Your task to perform on an android device: find which apps use the phone's location Image 0: 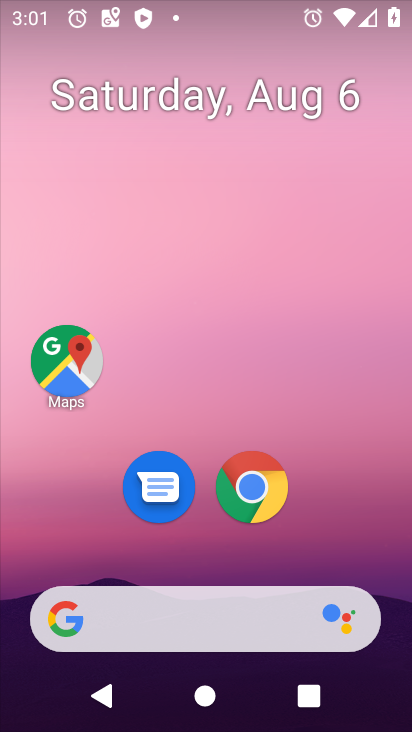
Step 0: drag from (267, 591) to (205, 106)
Your task to perform on an android device: find which apps use the phone's location Image 1: 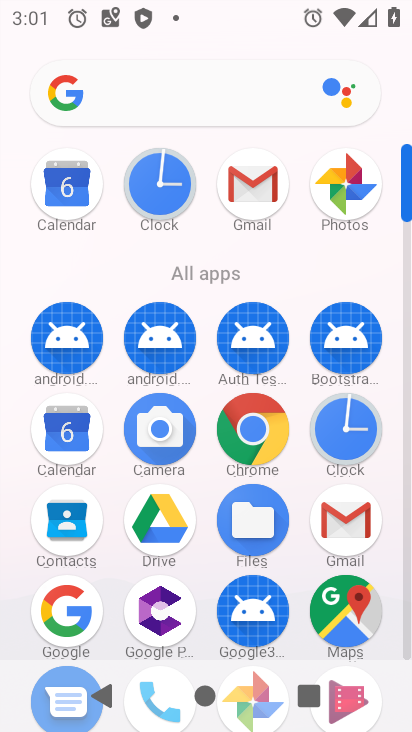
Step 1: drag from (206, 598) to (204, 252)
Your task to perform on an android device: find which apps use the phone's location Image 2: 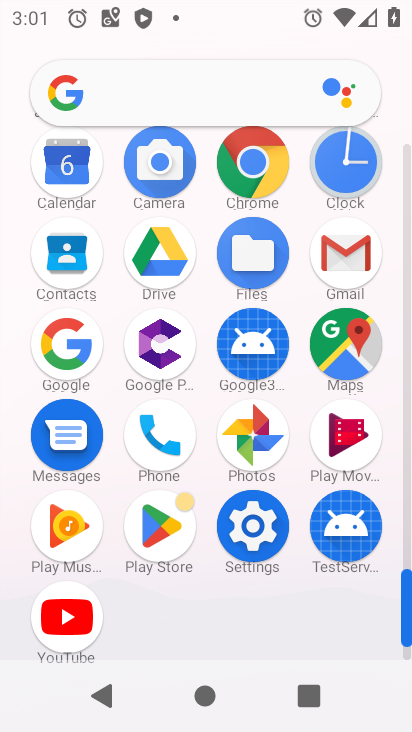
Step 2: click (271, 559)
Your task to perform on an android device: find which apps use the phone's location Image 3: 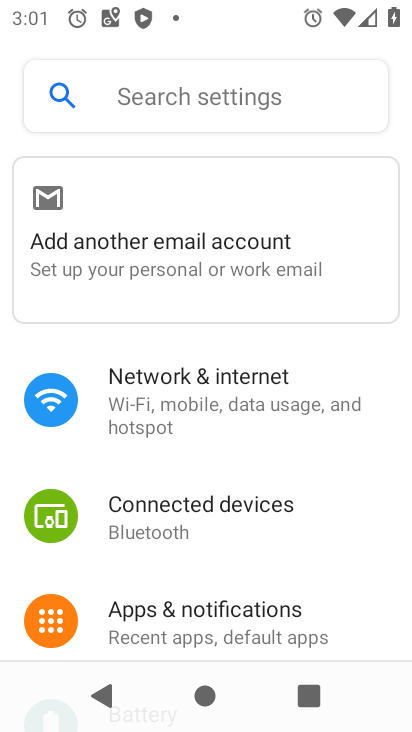
Step 3: drag from (204, 602) to (192, 217)
Your task to perform on an android device: find which apps use the phone's location Image 4: 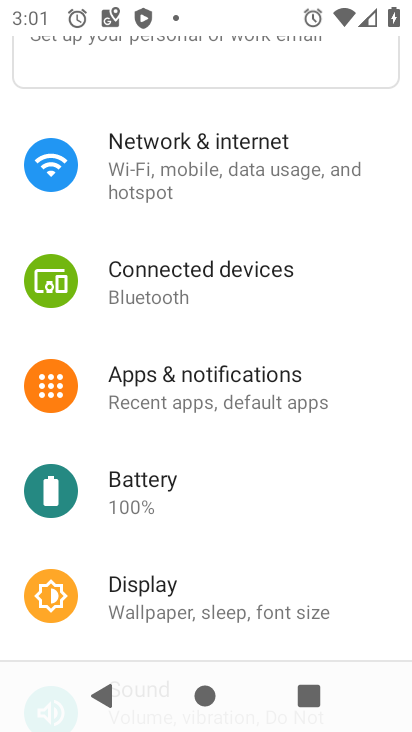
Step 4: drag from (225, 532) to (229, 181)
Your task to perform on an android device: find which apps use the phone's location Image 5: 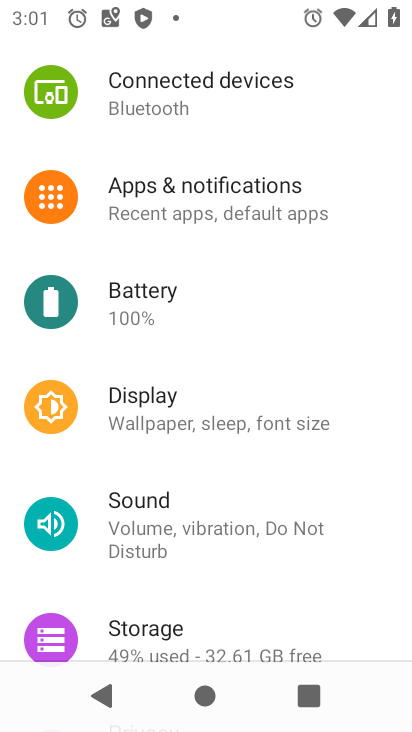
Step 5: drag from (189, 531) to (216, 127)
Your task to perform on an android device: find which apps use the phone's location Image 6: 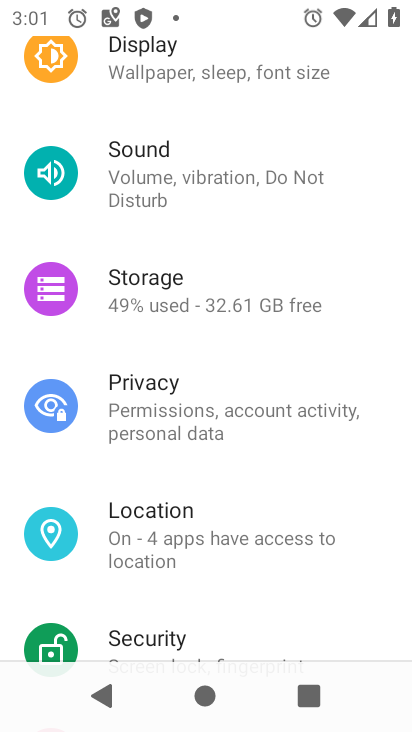
Step 6: click (165, 525)
Your task to perform on an android device: find which apps use the phone's location Image 7: 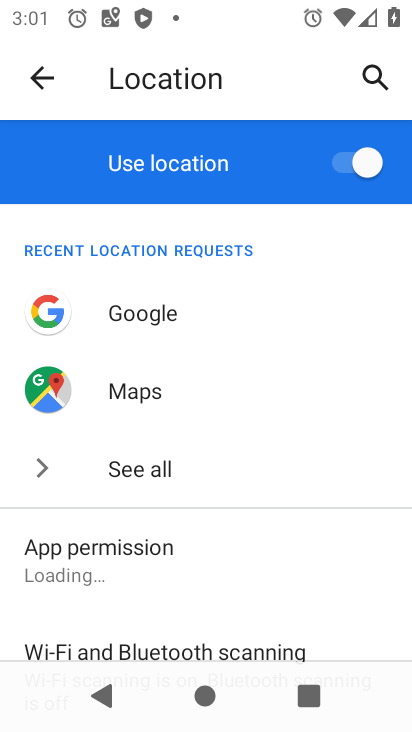
Step 7: click (139, 550)
Your task to perform on an android device: find which apps use the phone's location Image 8: 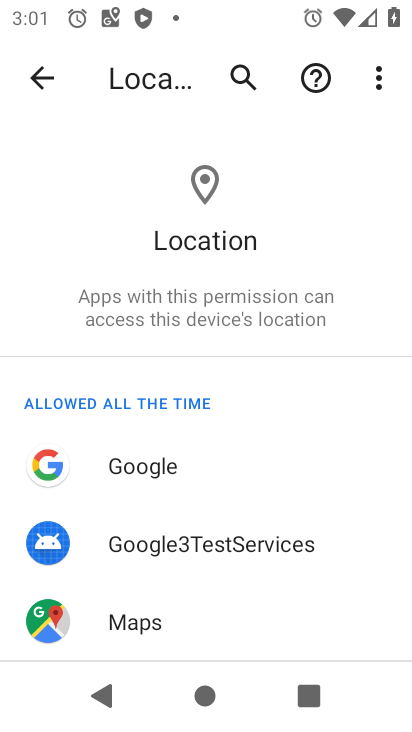
Step 8: task complete